Your task to perform on an android device: turn on sleep mode Image 0: 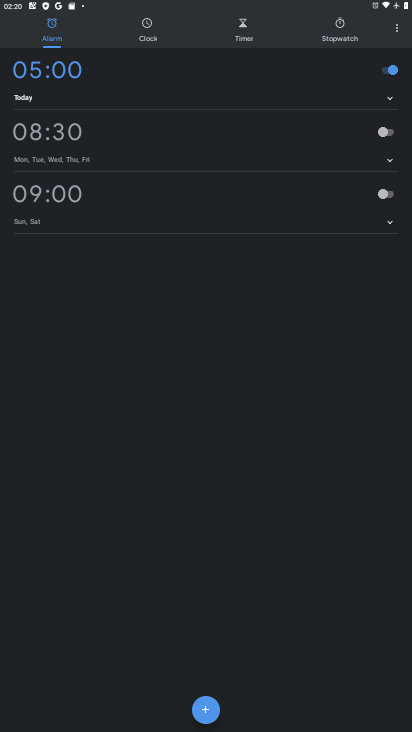
Step 0: press home button
Your task to perform on an android device: turn on sleep mode Image 1: 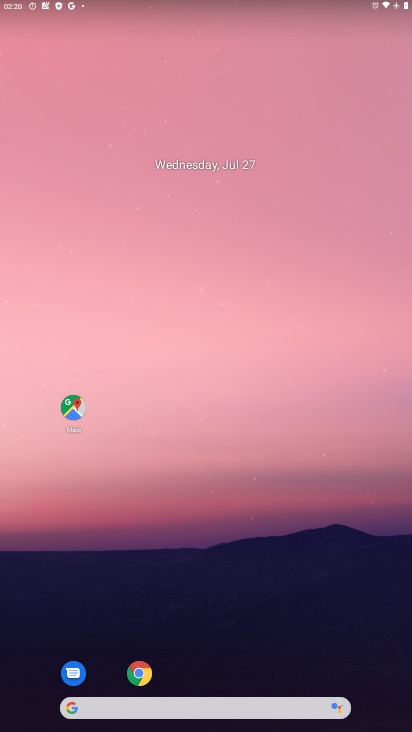
Step 1: drag from (204, 668) to (226, 3)
Your task to perform on an android device: turn on sleep mode Image 2: 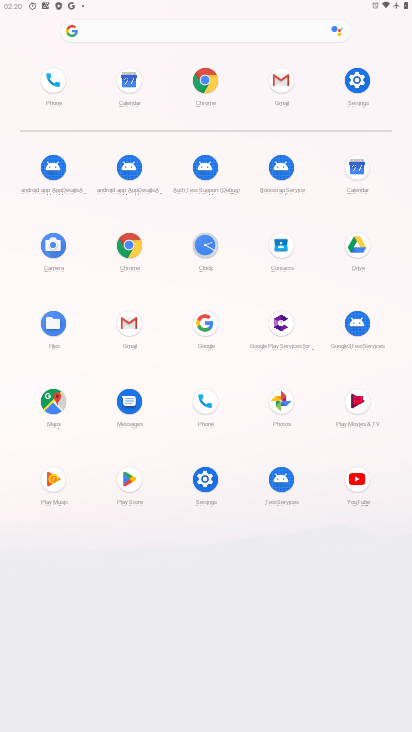
Step 2: click (357, 85)
Your task to perform on an android device: turn on sleep mode Image 3: 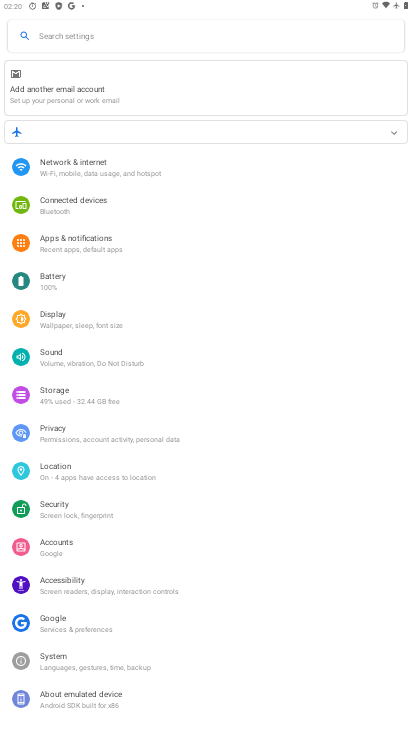
Step 3: click (53, 324)
Your task to perform on an android device: turn on sleep mode Image 4: 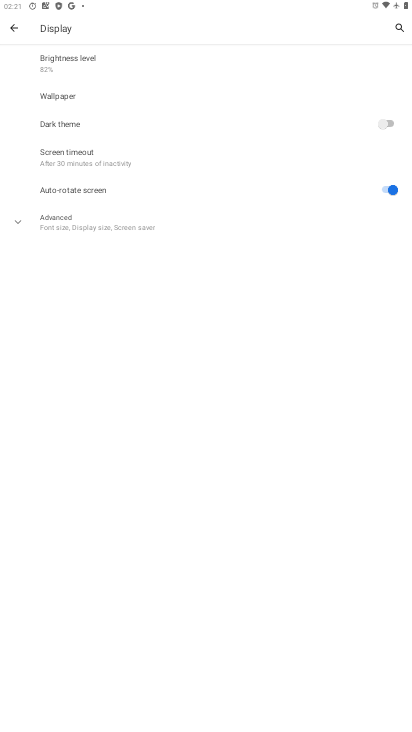
Step 4: click (14, 224)
Your task to perform on an android device: turn on sleep mode Image 5: 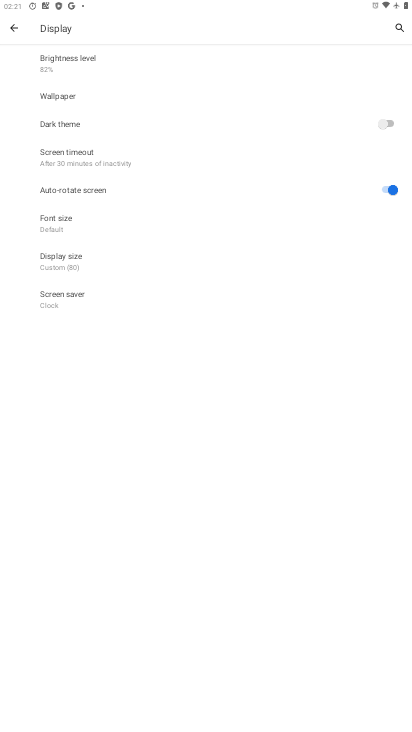
Step 5: task complete